Your task to perform on an android device: Go to Maps Image 0: 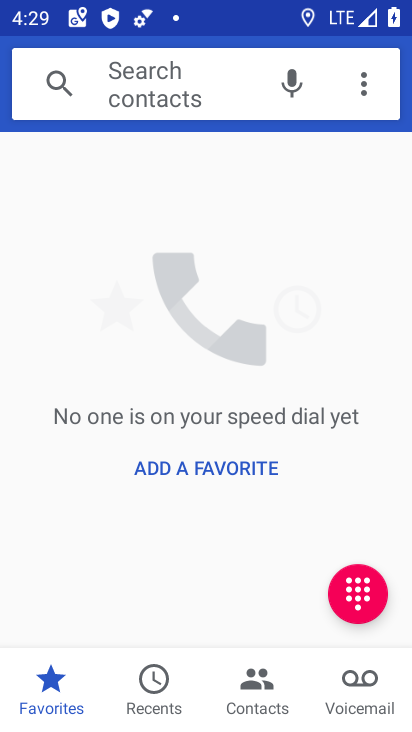
Step 0: press back button
Your task to perform on an android device: Go to Maps Image 1: 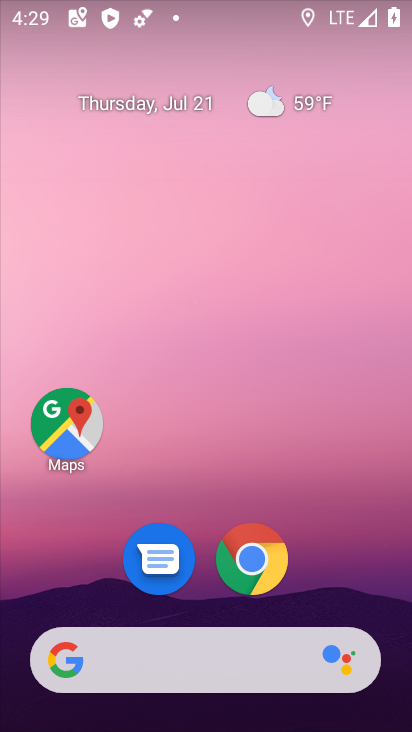
Step 1: click (64, 414)
Your task to perform on an android device: Go to Maps Image 2: 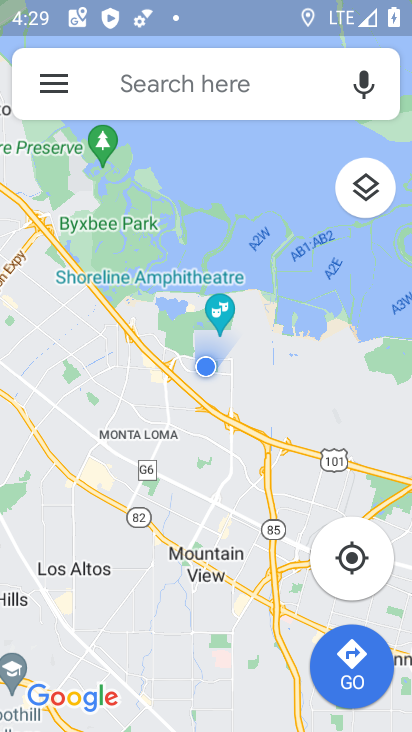
Step 2: task complete